Your task to perform on an android device: Go to calendar. Show me events next week Image 0: 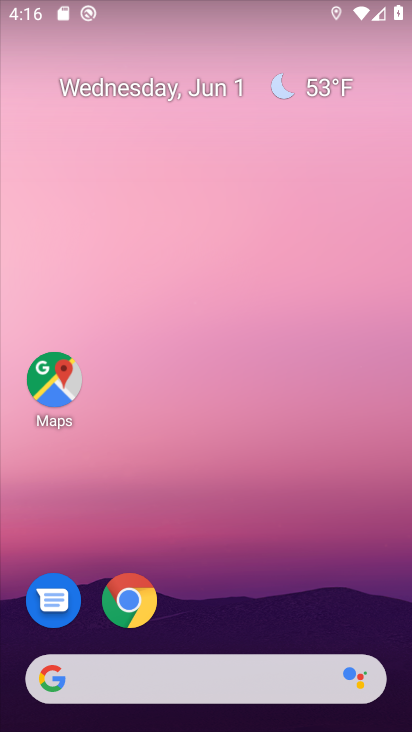
Step 0: drag from (217, 561) to (97, 98)
Your task to perform on an android device: Go to calendar. Show me events next week Image 1: 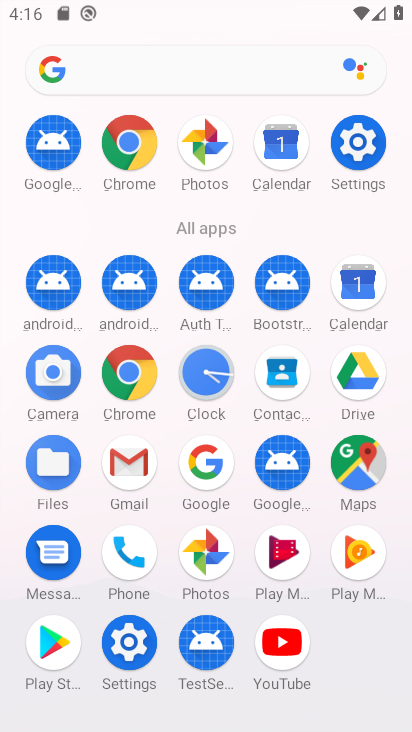
Step 1: click (350, 283)
Your task to perform on an android device: Go to calendar. Show me events next week Image 2: 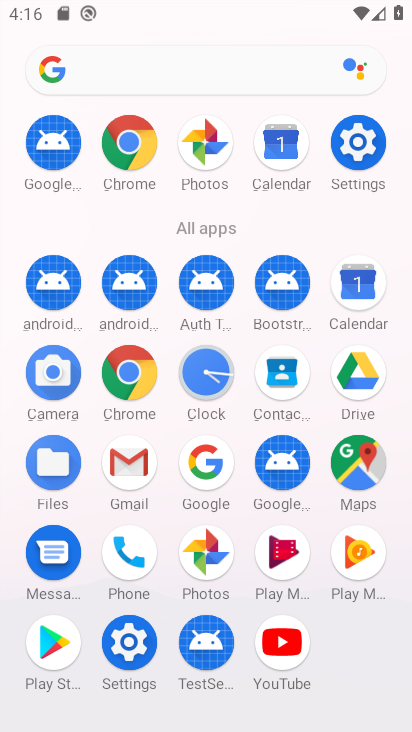
Step 2: click (350, 283)
Your task to perform on an android device: Go to calendar. Show me events next week Image 3: 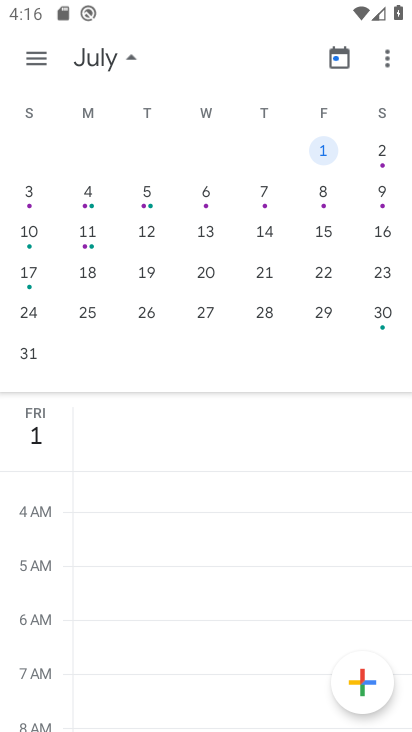
Step 3: click (348, 283)
Your task to perform on an android device: Go to calendar. Show me events next week Image 4: 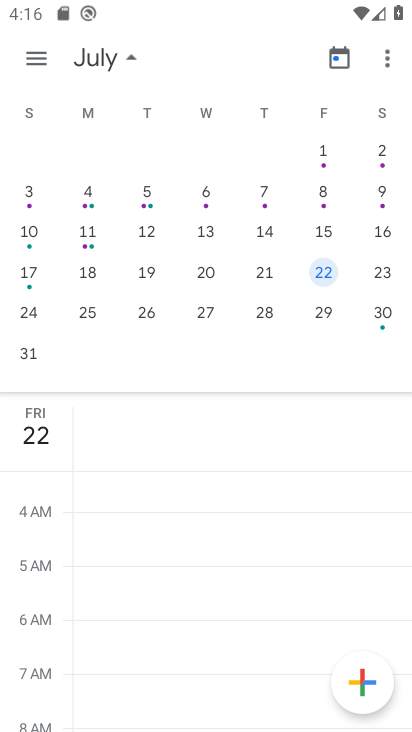
Step 4: drag from (99, 255) to (403, 297)
Your task to perform on an android device: Go to calendar. Show me events next week Image 5: 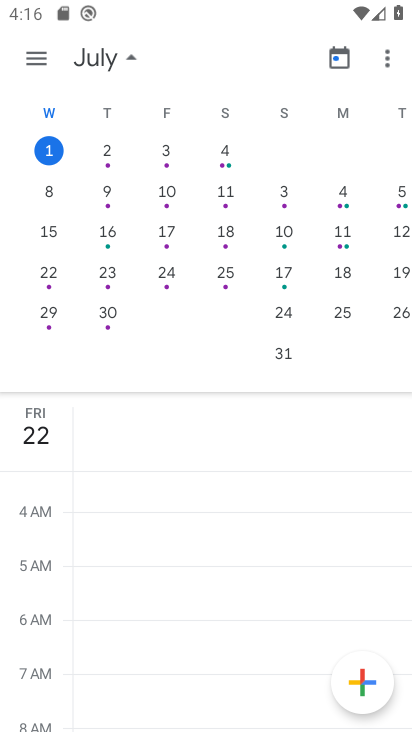
Step 5: drag from (128, 287) to (406, 268)
Your task to perform on an android device: Go to calendar. Show me events next week Image 6: 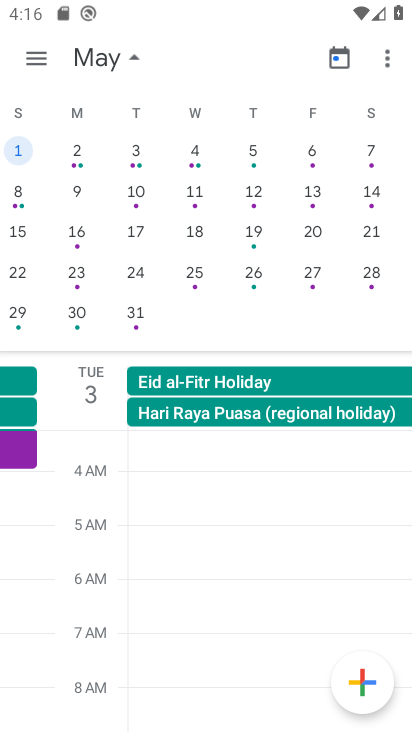
Step 6: drag from (285, 262) to (404, 262)
Your task to perform on an android device: Go to calendar. Show me events next week Image 7: 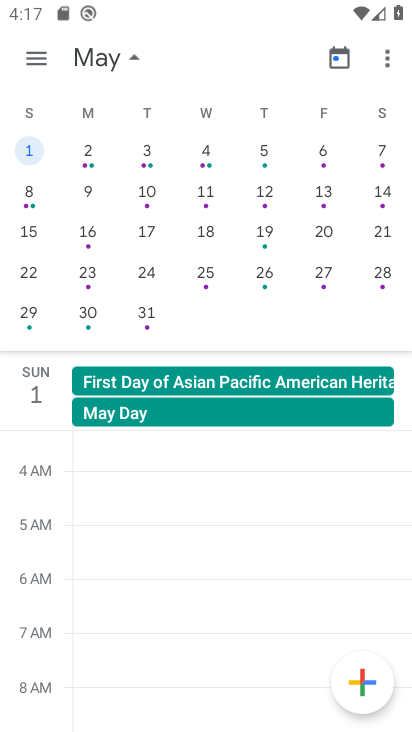
Step 7: click (88, 193)
Your task to perform on an android device: Go to calendar. Show me events next week Image 8: 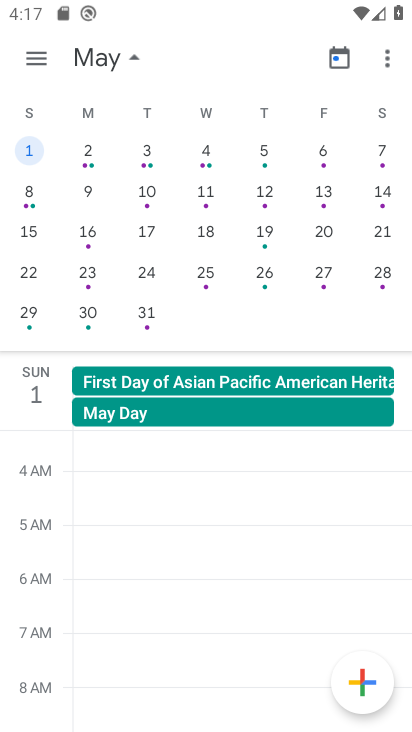
Step 8: click (88, 193)
Your task to perform on an android device: Go to calendar. Show me events next week Image 9: 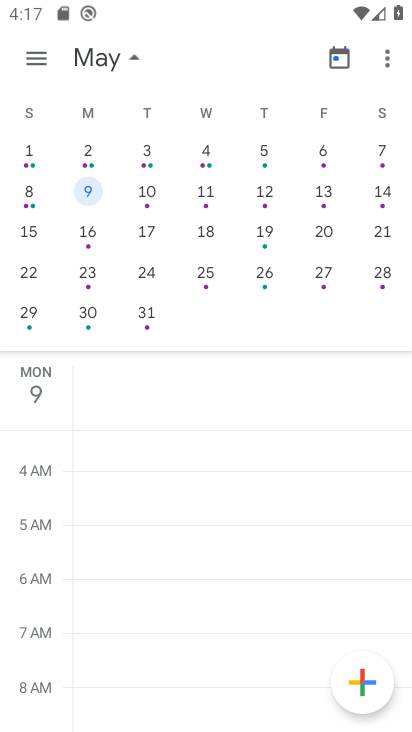
Step 9: drag from (308, 190) to (64, 192)
Your task to perform on an android device: Go to calendar. Show me events next week Image 10: 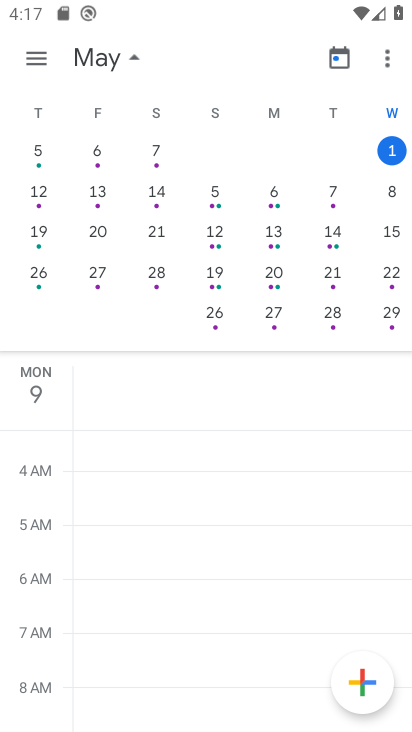
Step 10: drag from (266, 172) to (9, 329)
Your task to perform on an android device: Go to calendar. Show me events next week Image 11: 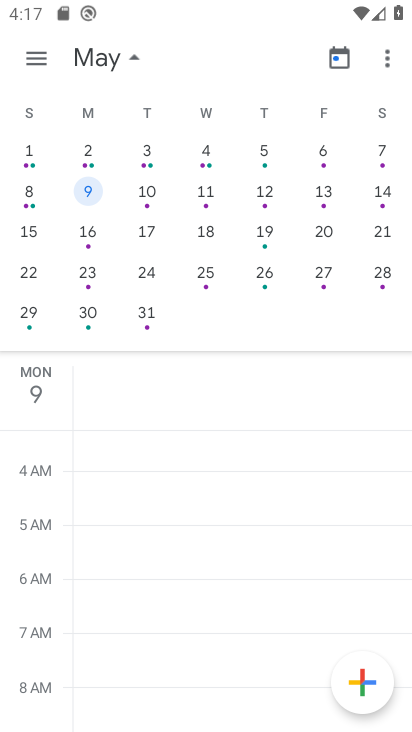
Step 11: drag from (207, 230) to (109, 258)
Your task to perform on an android device: Go to calendar. Show me events next week Image 12: 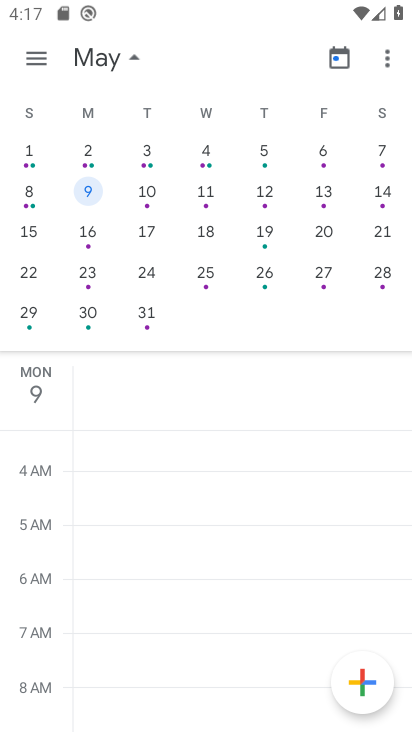
Step 12: drag from (279, 204) to (103, 251)
Your task to perform on an android device: Go to calendar. Show me events next week Image 13: 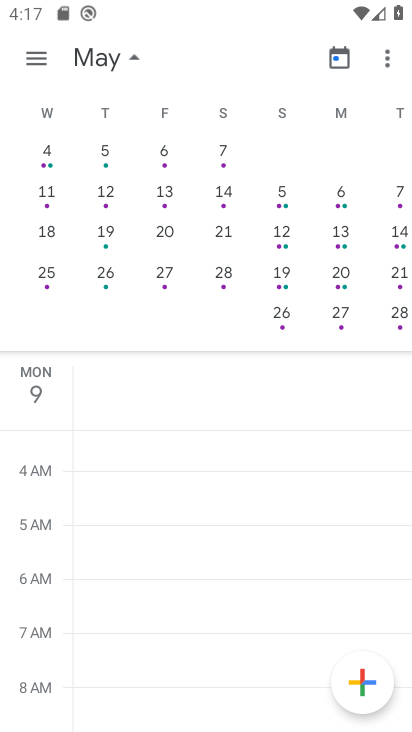
Step 13: drag from (398, 210) to (170, 243)
Your task to perform on an android device: Go to calendar. Show me events next week Image 14: 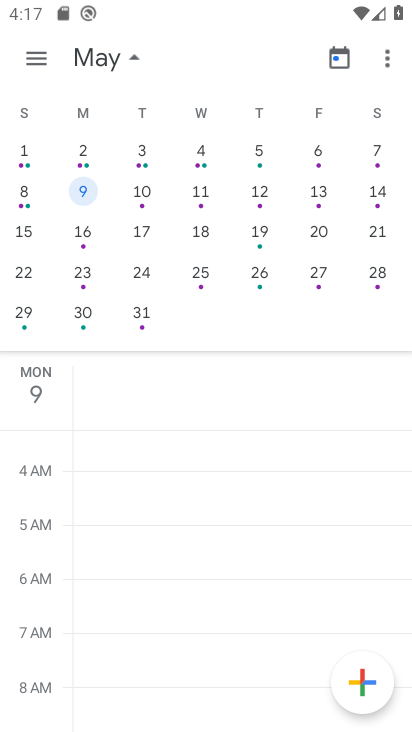
Step 14: drag from (329, 227) to (30, 268)
Your task to perform on an android device: Go to calendar. Show me events next week Image 15: 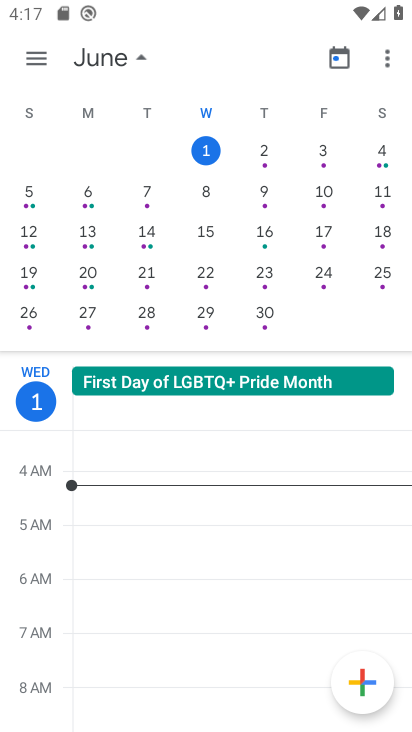
Step 15: drag from (275, 215) to (50, 354)
Your task to perform on an android device: Go to calendar. Show me events next week Image 16: 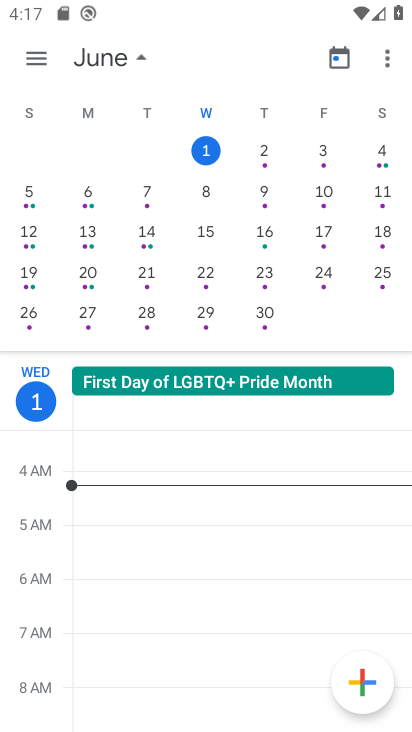
Step 16: drag from (280, 315) to (126, 290)
Your task to perform on an android device: Go to calendar. Show me events next week Image 17: 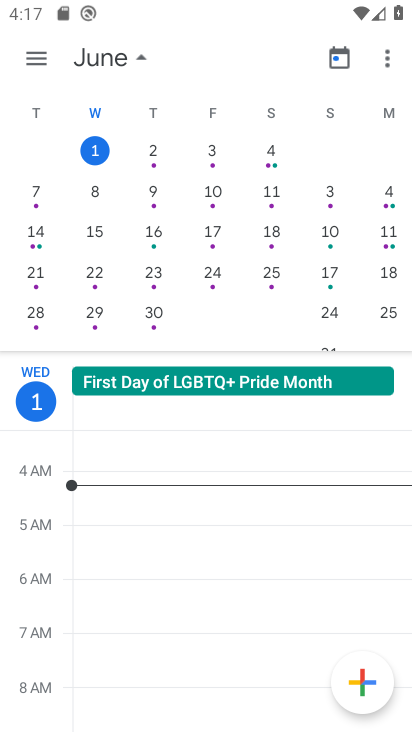
Step 17: drag from (289, 211) to (53, 297)
Your task to perform on an android device: Go to calendar. Show me events next week Image 18: 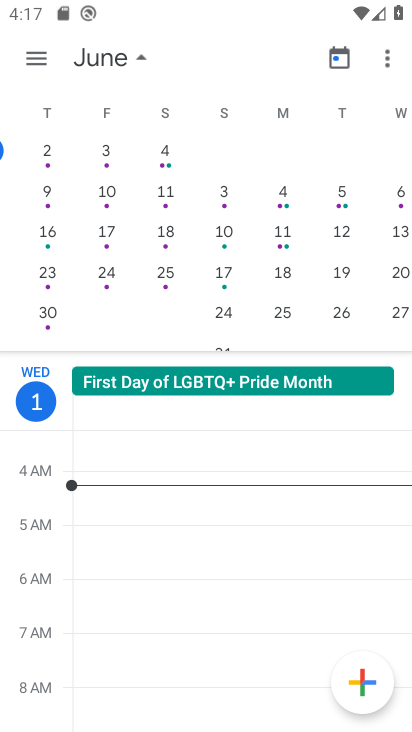
Step 18: drag from (249, 249) to (45, 283)
Your task to perform on an android device: Go to calendar. Show me events next week Image 19: 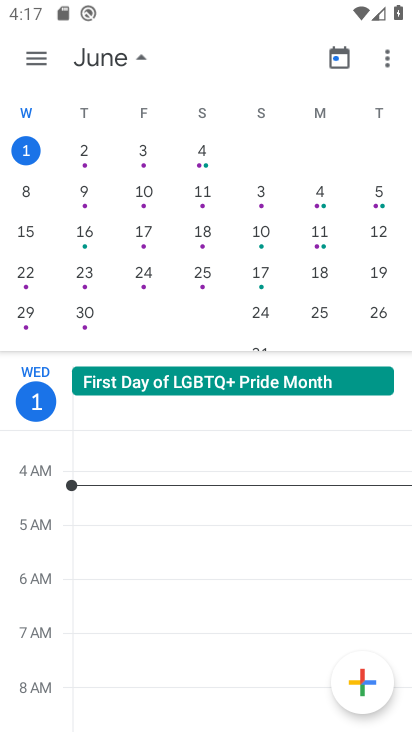
Step 19: drag from (300, 205) to (6, 267)
Your task to perform on an android device: Go to calendar. Show me events next week Image 20: 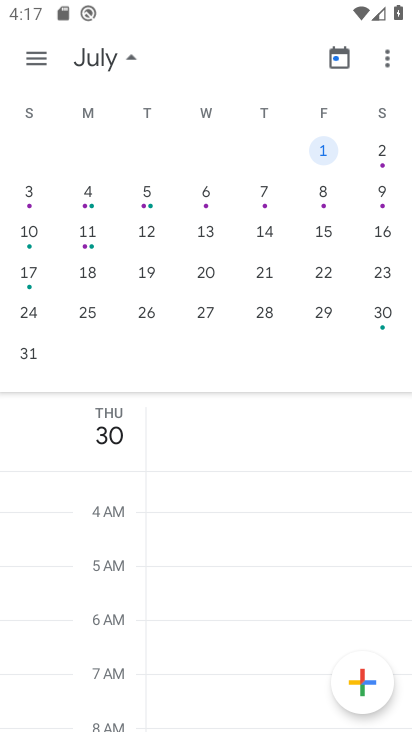
Step 20: drag from (17, 283) to (45, 243)
Your task to perform on an android device: Go to calendar. Show me events next week Image 21: 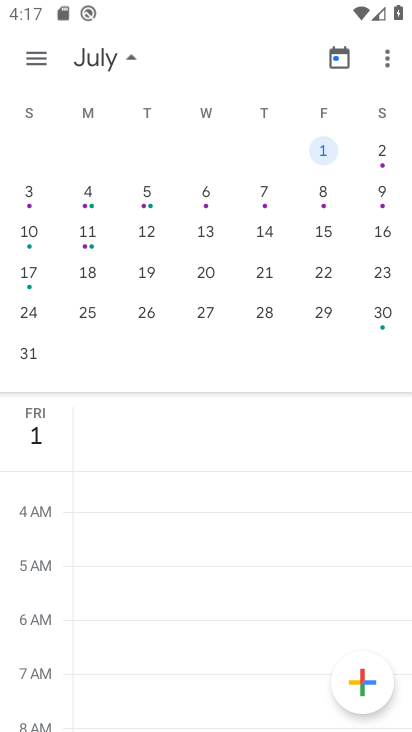
Step 21: drag from (157, 271) to (9, 305)
Your task to perform on an android device: Go to calendar. Show me events next week Image 22: 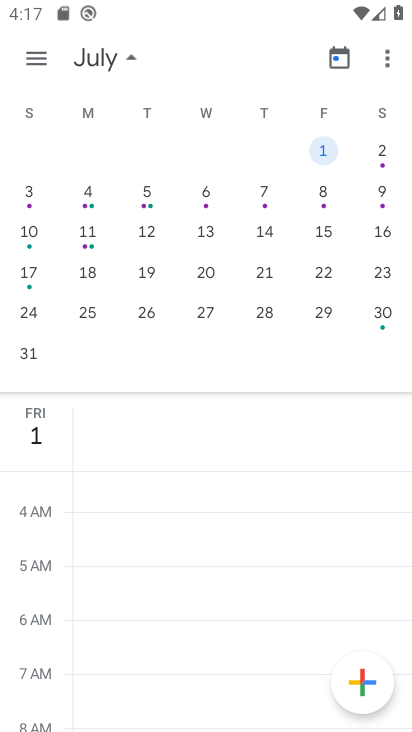
Step 22: click (322, 188)
Your task to perform on an android device: Go to calendar. Show me events next week Image 23: 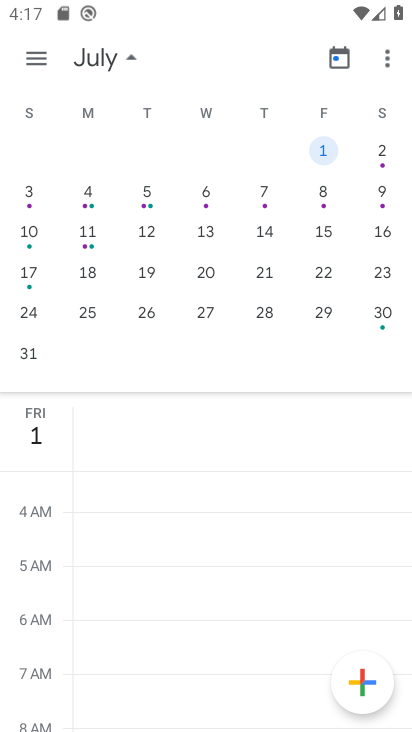
Step 23: drag from (81, 260) to (360, 283)
Your task to perform on an android device: Go to calendar. Show me events next week Image 24: 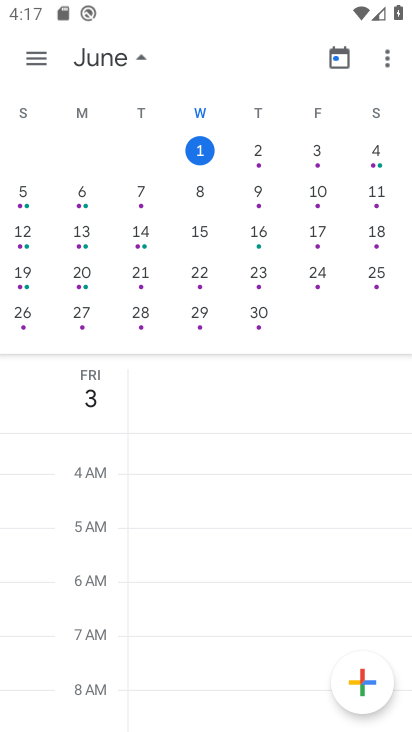
Step 24: drag from (92, 253) to (219, 276)
Your task to perform on an android device: Go to calendar. Show me events next week Image 25: 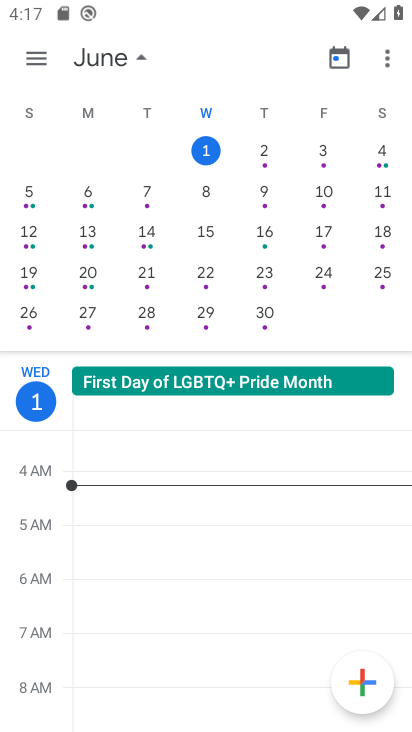
Step 25: click (205, 189)
Your task to perform on an android device: Go to calendar. Show me events next week Image 26: 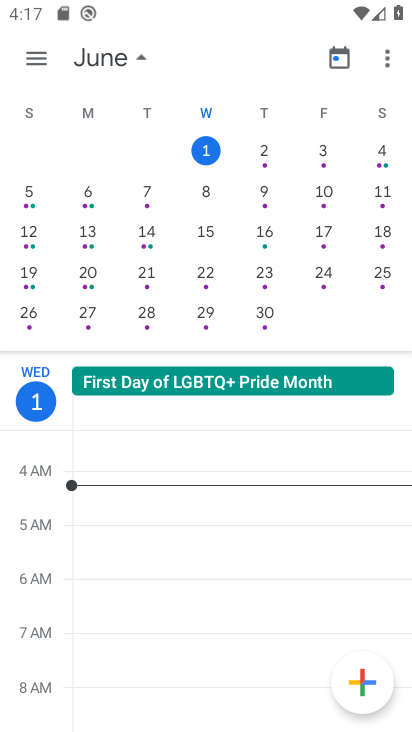
Step 26: click (205, 189)
Your task to perform on an android device: Go to calendar. Show me events next week Image 27: 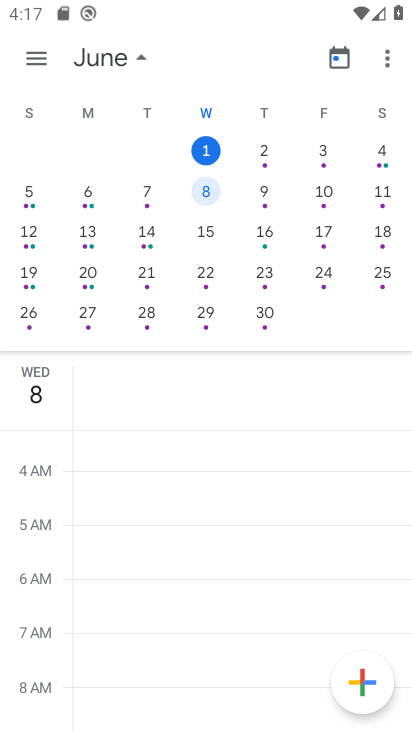
Step 27: task complete